Your task to perform on an android device: turn off location Image 0: 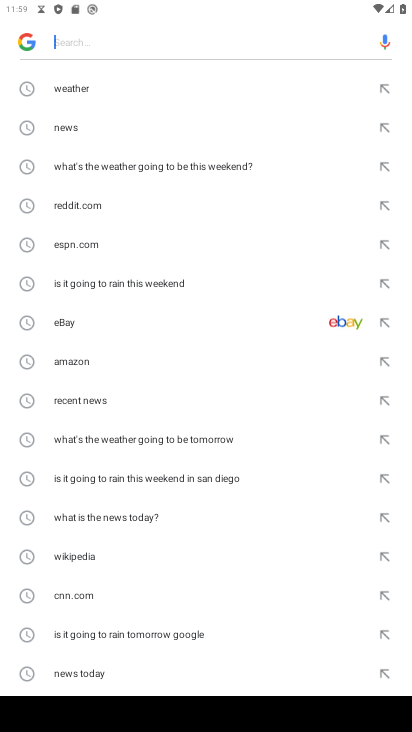
Step 0: press home button
Your task to perform on an android device: turn off location Image 1: 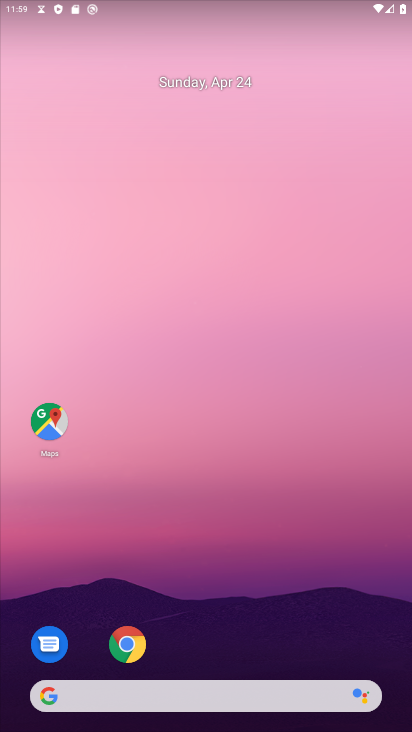
Step 1: drag from (329, 642) to (334, 116)
Your task to perform on an android device: turn off location Image 2: 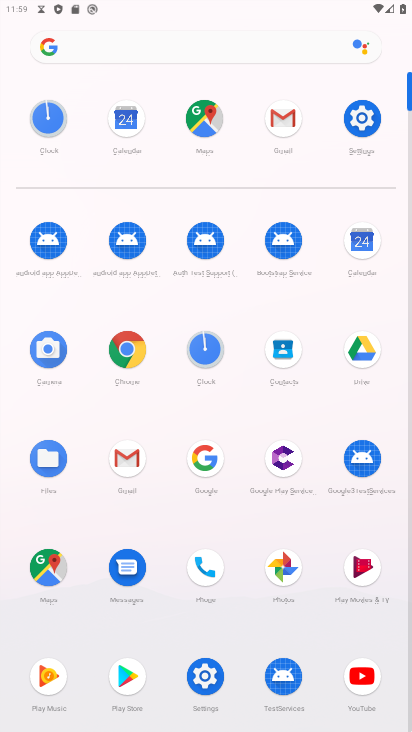
Step 2: click (365, 120)
Your task to perform on an android device: turn off location Image 3: 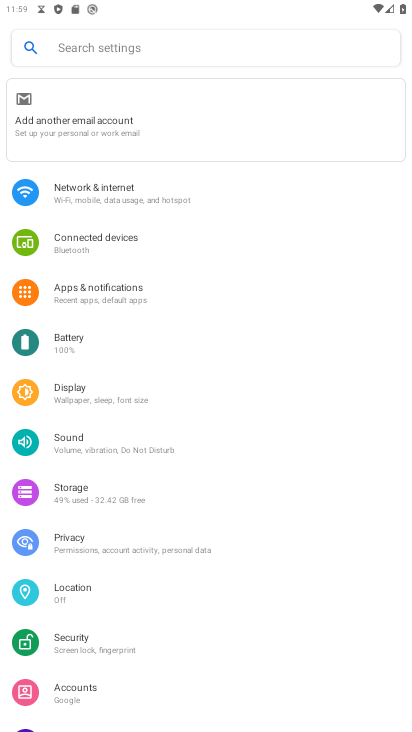
Step 3: click (76, 590)
Your task to perform on an android device: turn off location Image 4: 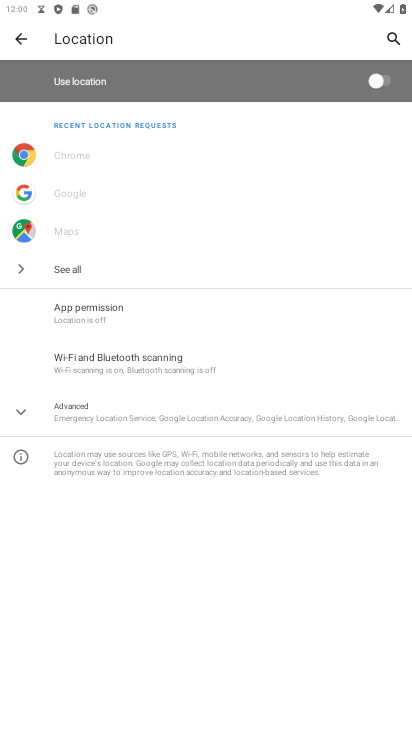
Step 4: task complete